Your task to perform on an android device: open app "The Home Depot" Image 0: 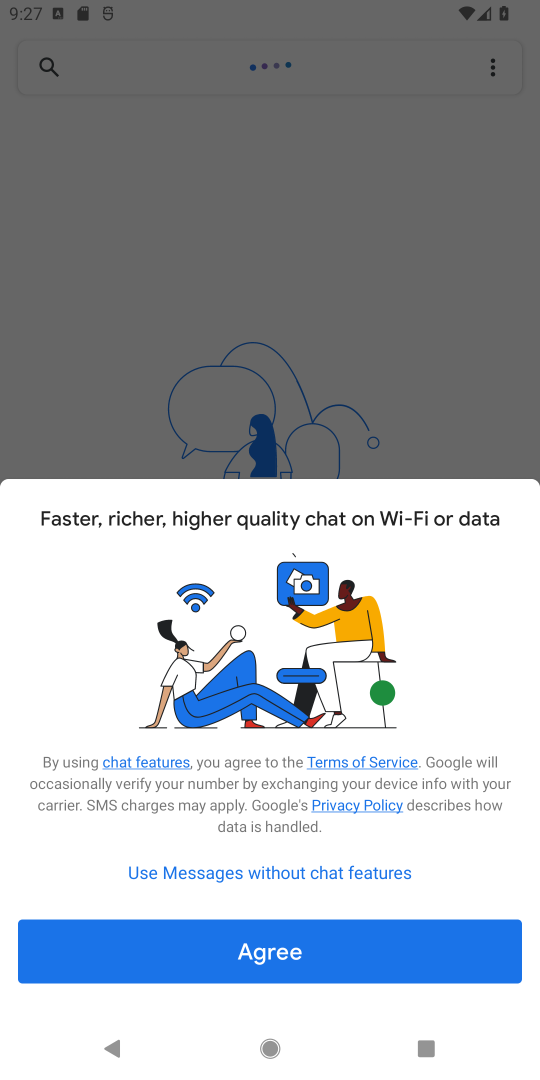
Step 0: press home button
Your task to perform on an android device: open app "The Home Depot" Image 1: 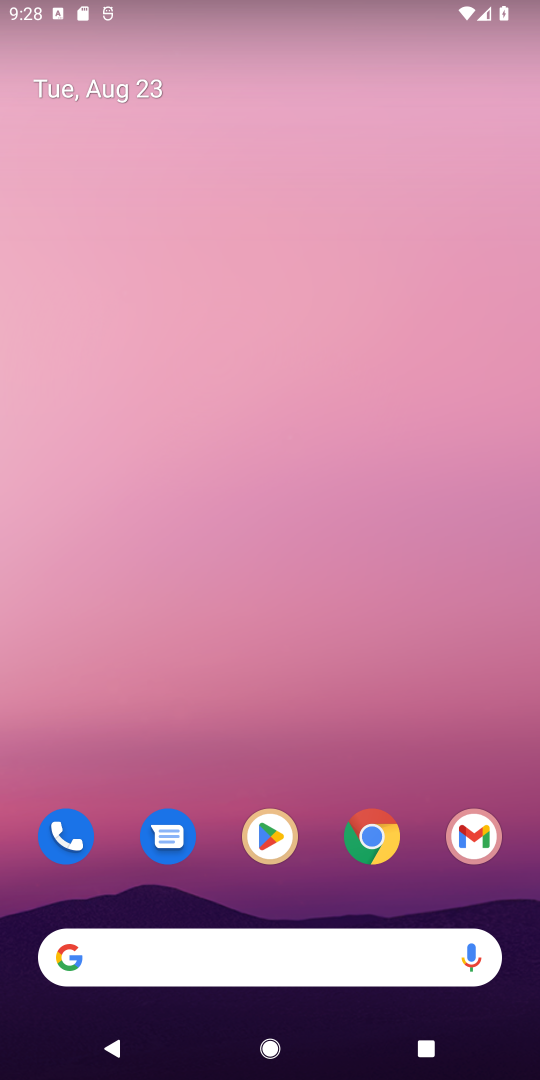
Step 1: click (257, 829)
Your task to perform on an android device: open app "The Home Depot" Image 2: 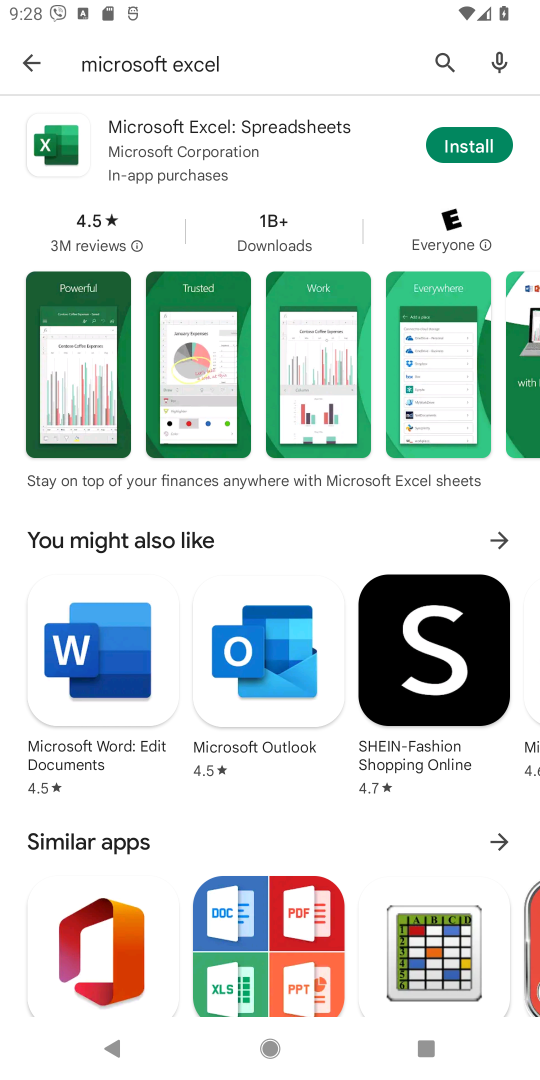
Step 2: click (436, 54)
Your task to perform on an android device: open app "The Home Depot" Image 3: 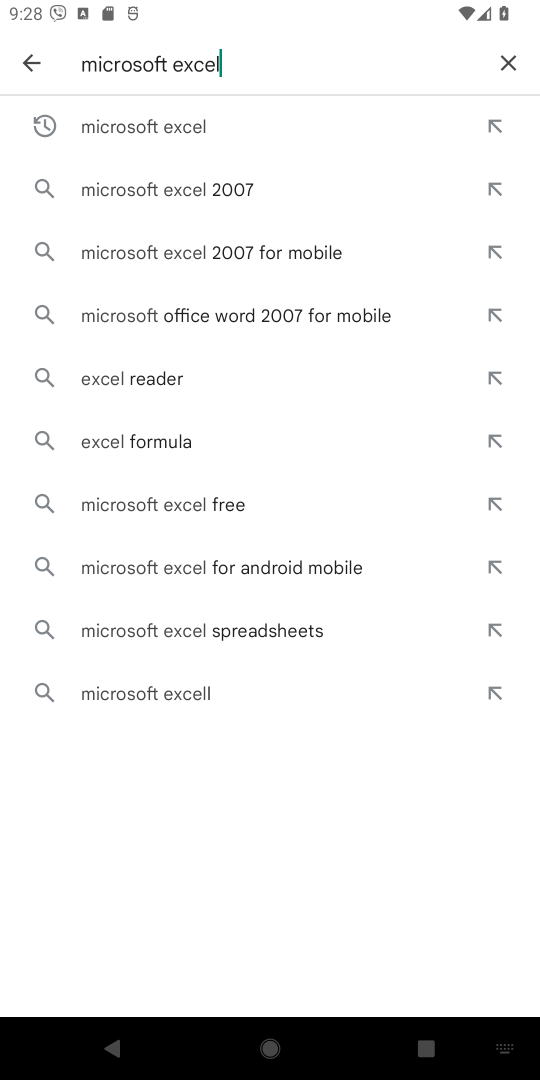
Step 3: click (504, 59)
Your task to perform on an android device: open app "The Home Depot" Image 4: 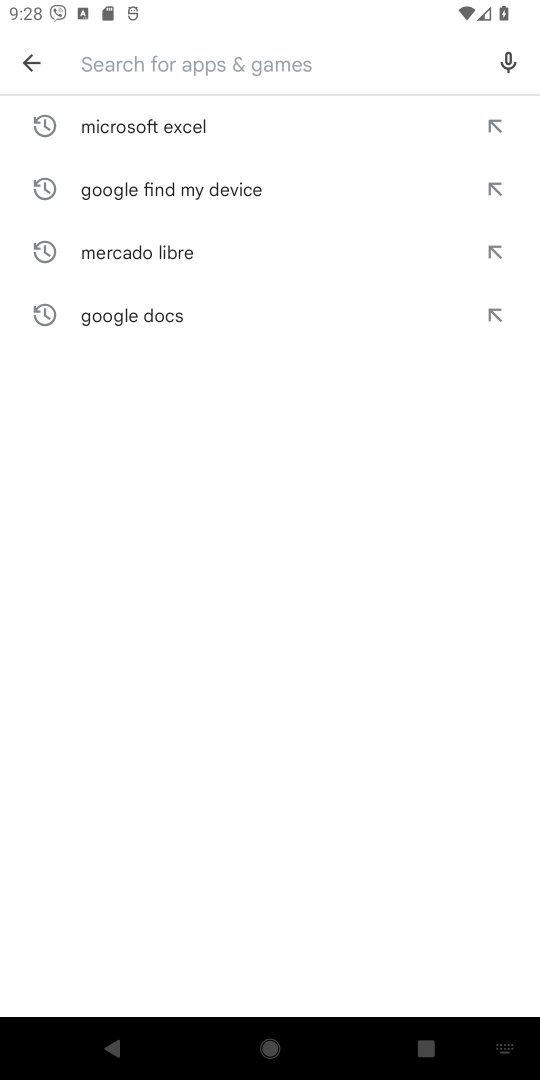
Step 4: type "The Home Depot"
Your task to perform on an android device: open app "The Home Depot" Image 5: 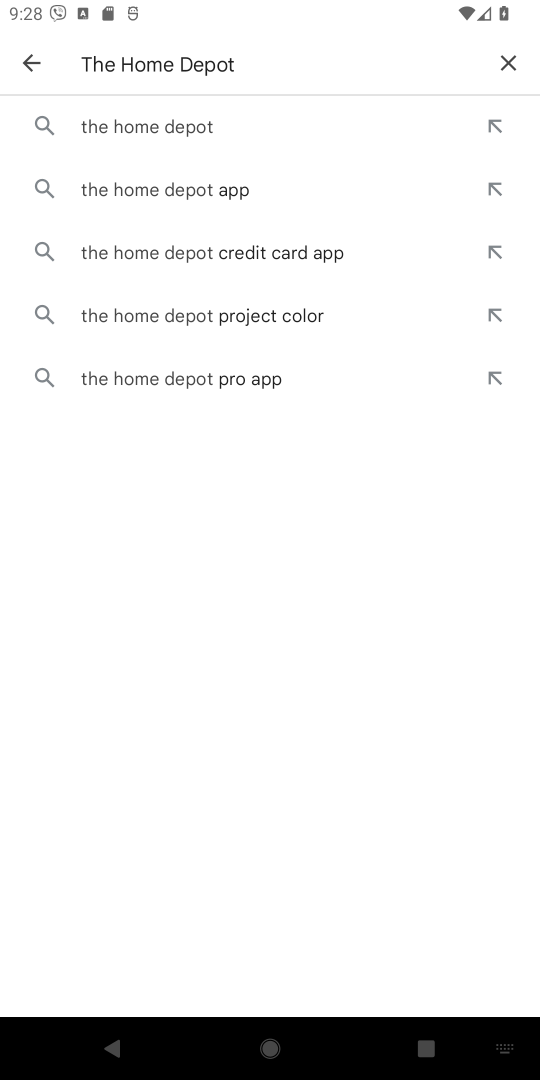
Step 5: click (184, 131)
Your task to perform on an android device: open app "The Home Depot" Image 6: 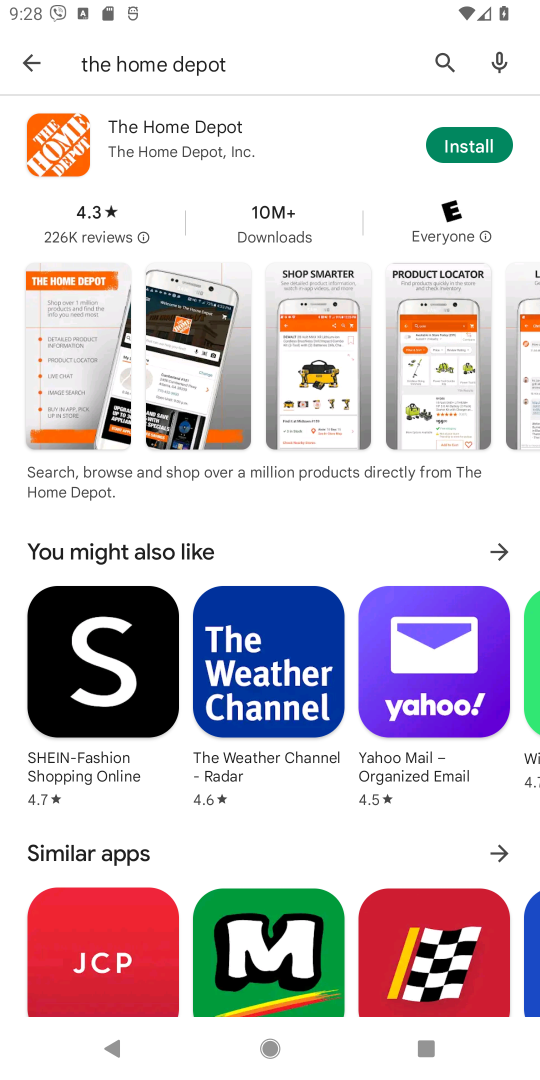
Step 6: task complete